Your task to perform on an android device: visit the assistant section in the google photos Image 0: 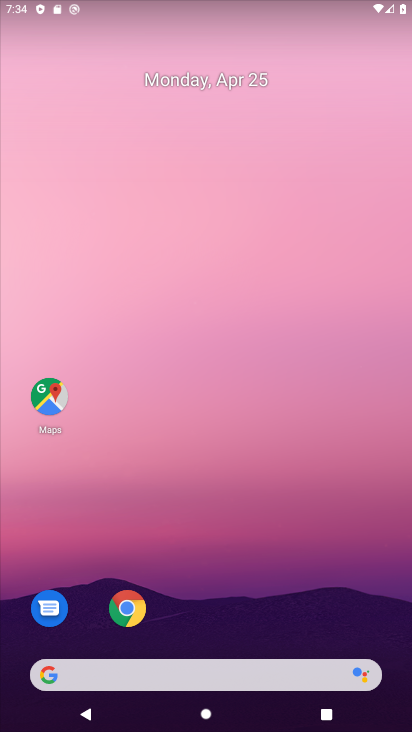
Step 0: drag from (242, 594) to (255, 138)
Your task to perform on an android device: visit the assistant section in the google photos Image 1: 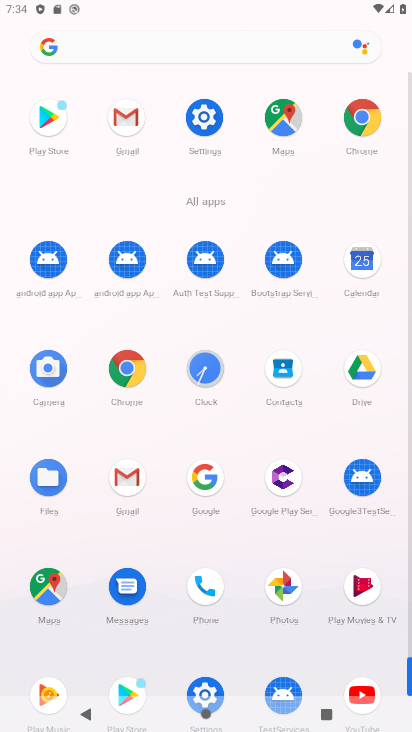
Step 1: click (279, 584)
Your task to perform on an android device: visit the assistant section in the google photos Image 2: 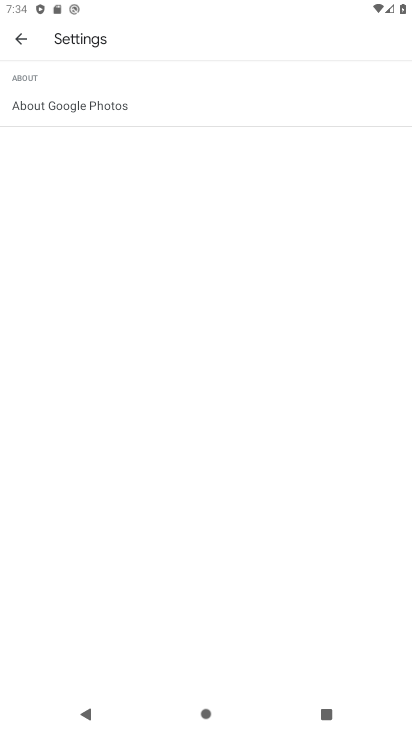
Step 2: click (20, 43)
Your task to perform on an android device: visit the assistant section in the google photos Image 3: 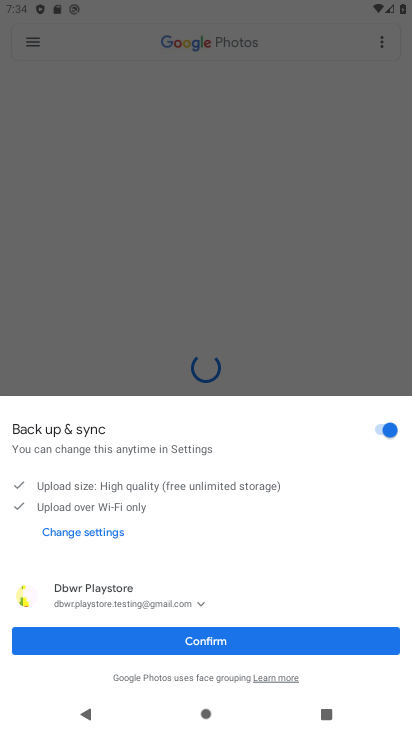
Step 3: click (289, 635)
Your task to perform on an android device: visit the assistant section in the google photos Image 4: 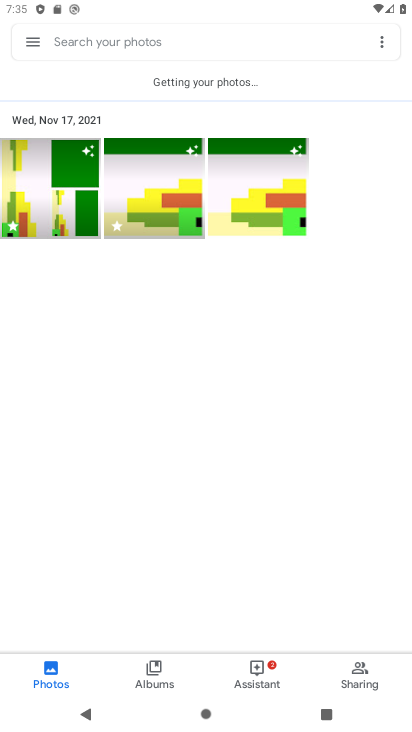
Step 4: click (253, 675)
Your task to perform on an android device: visit the assistant section in the google photos Image 5: 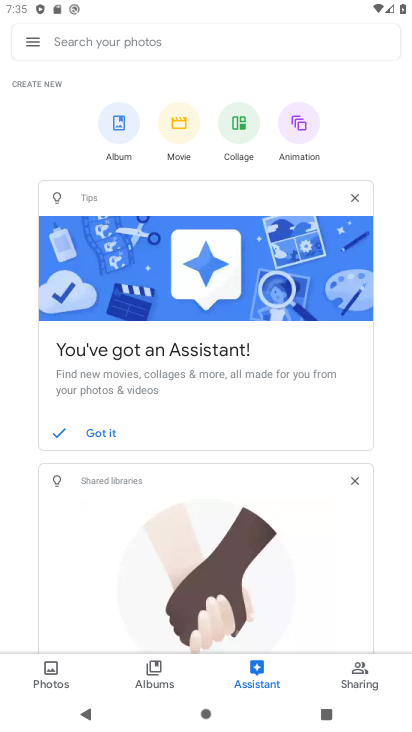
Step 5: task complete